Your task to perform on an android device: Is it going to rain tomorrow? Image 0: 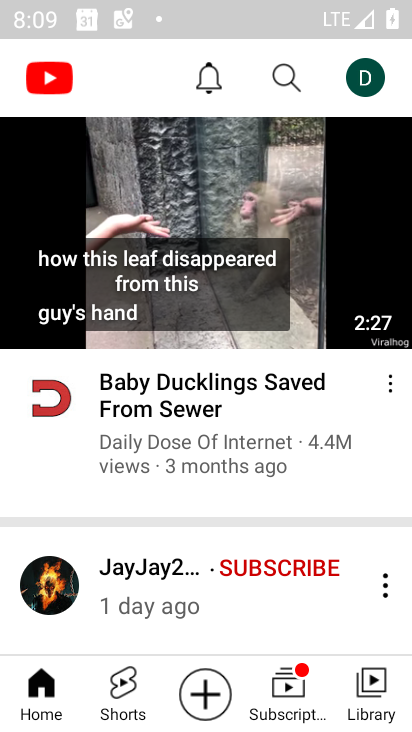
Step 0: press home button
Your task to perform on an android device: Is it going to rain tomorrow? Image 1: 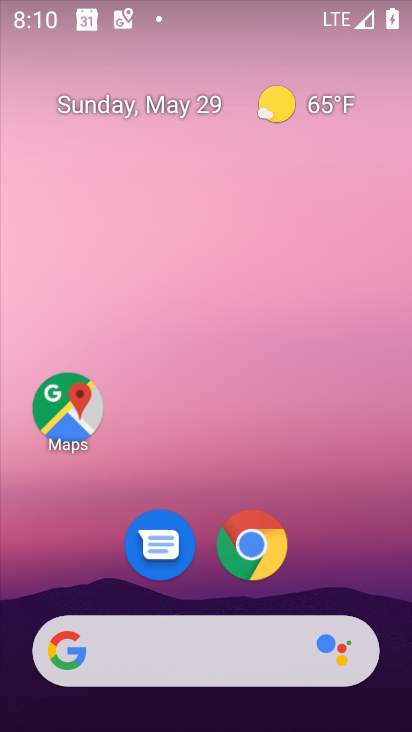
Step 1: type "Is it going to rain tomorrow?"
Your task to perform on an android device: Is it going to rain tomorrow? Image 2: 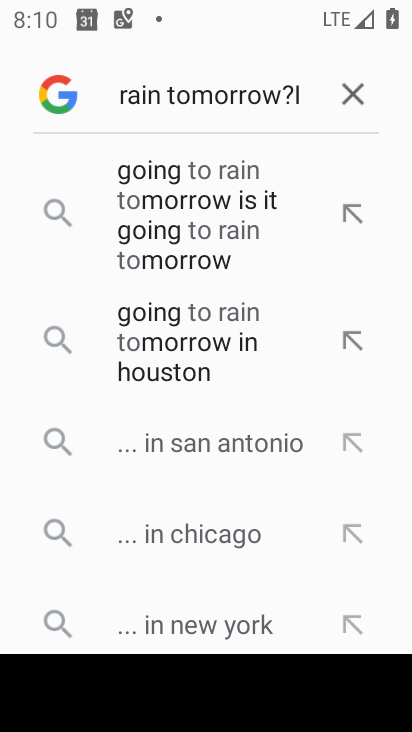
Step 2: click (354, 91)
Your task to perform on an android device: Is it going to rain tomorrow? Image 3: 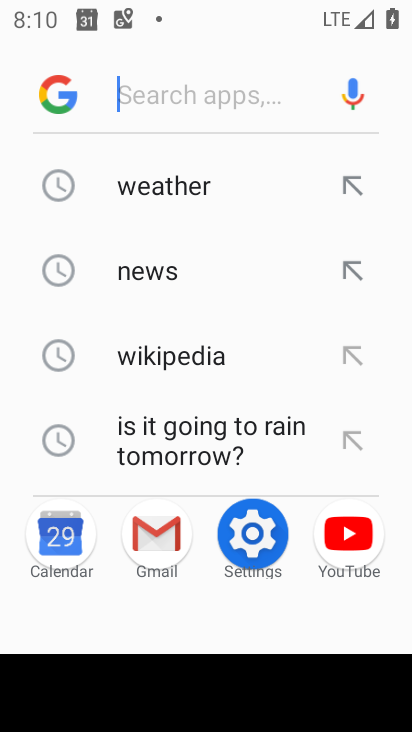
Step 3: type "Is it going to rain tomorrow?"
Your task to perform on an android device: Is it going to rain tomorrow? Image 4: 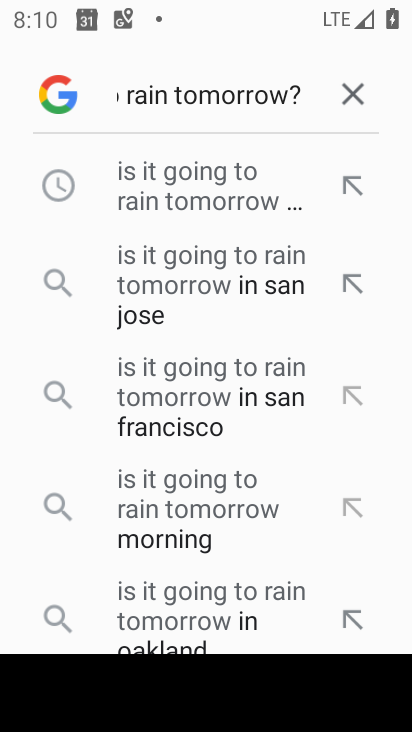
Step 4: click (228, 197)
Your task to perform on an android device: Is it going to rain tomorrow? Image 5: 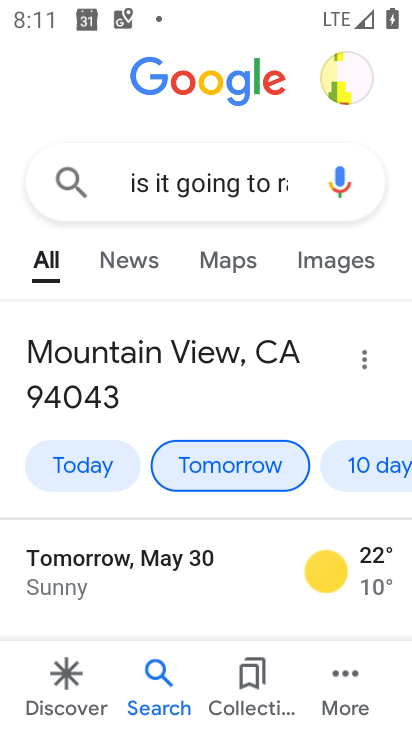
Step 5: task complete